Your task to perform on an android device: see creations saved in the google photos Image 0: 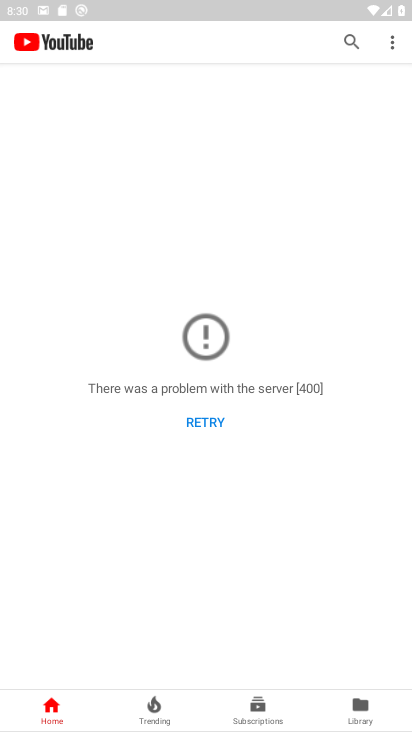
Step 0: press home button
Your task to perform on an android device: see creations saved in the google photos Image 1: 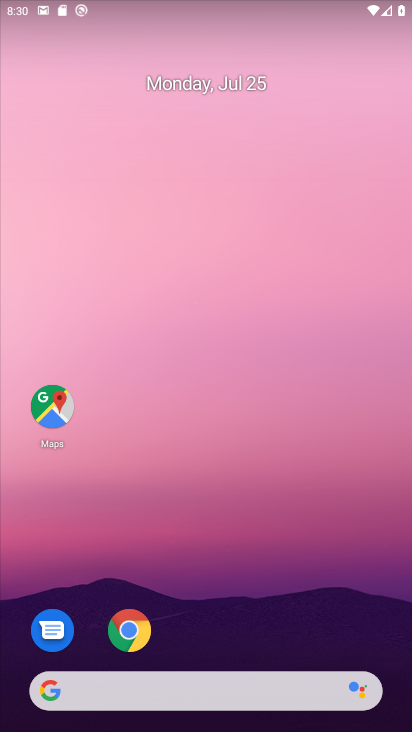
Step 1: drag from (251, 641) to (157, 183)
Your task to perform on an android device: see creations saved in the google photos Image 2: 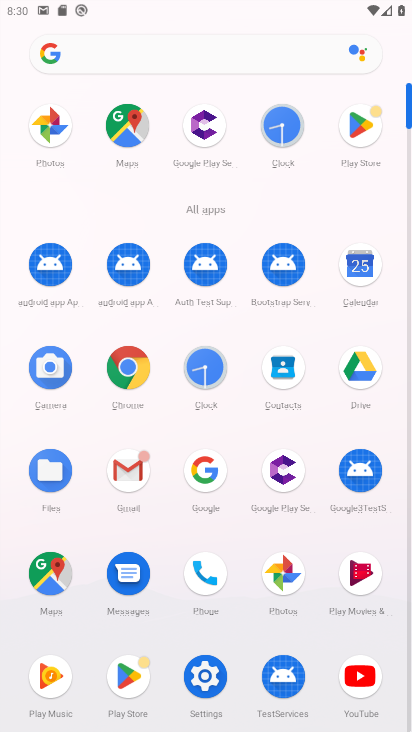
Step 2: click (56, 133)
Your task to perform on an android device: see creations saved in the google photos Image 3: 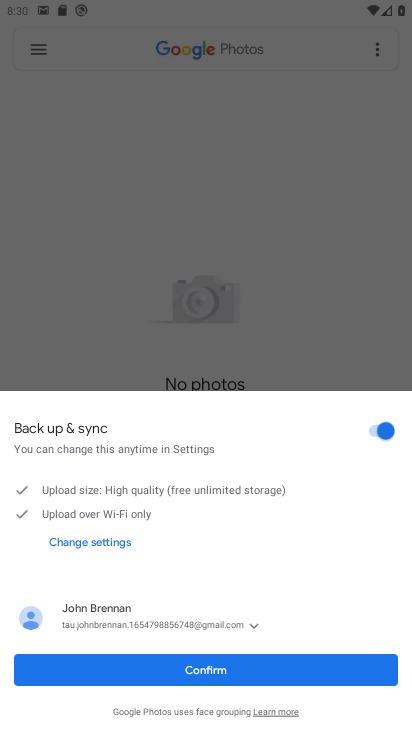
Step 3: click (259, 672)
Your task to perform on an android device: see creations saved in the google photos Image 4: 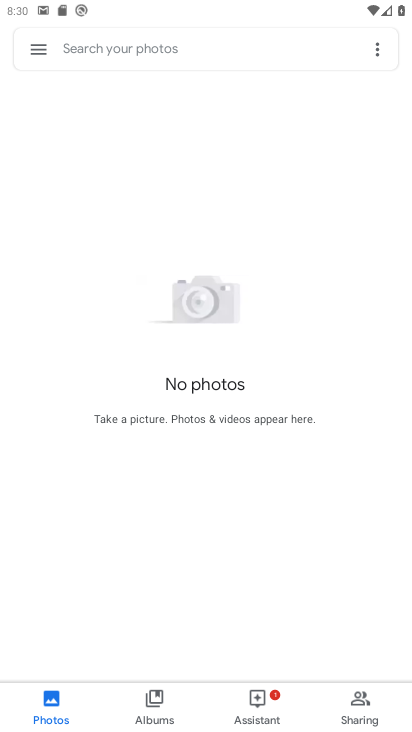
Step 4: click (98, 54)
Your task to perform on an android device: see creations saved in the google photos Image 5: 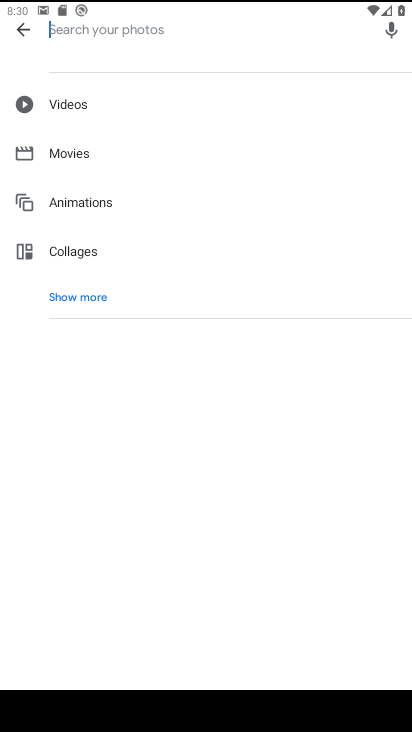
Step 5: click (116, 290)
Your task to perform on an android device: see creations saved in the google photos Image 6: 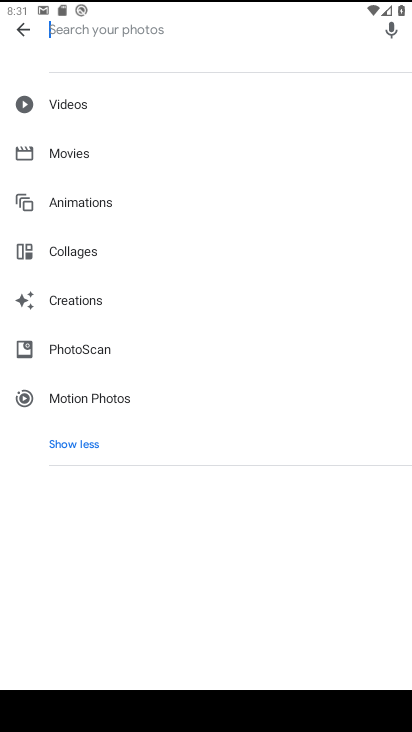
Step 6: click (85, 302)
Your task to perform on an android device: see creations saved in the google photos Image 7: 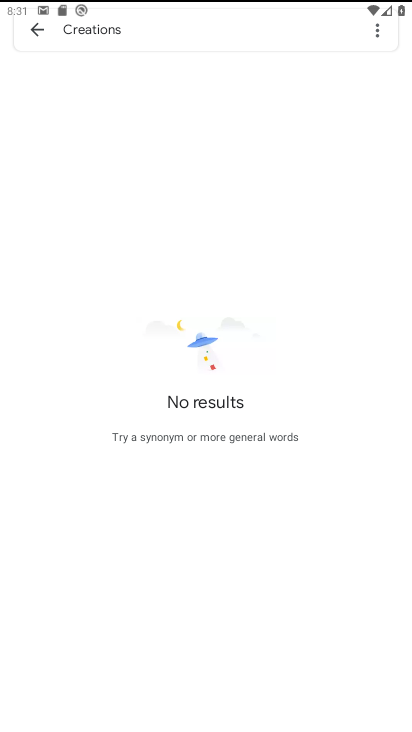
Step 7: task complete